Your task to perform on an android device: turn on translation in the chrome app Image 0: 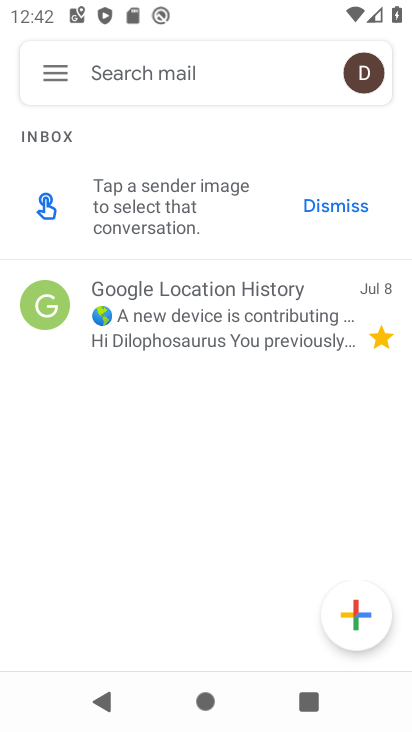
Step 0: press home button
Your task to perform on an android device: turn on translation in the chrome app Image 1: 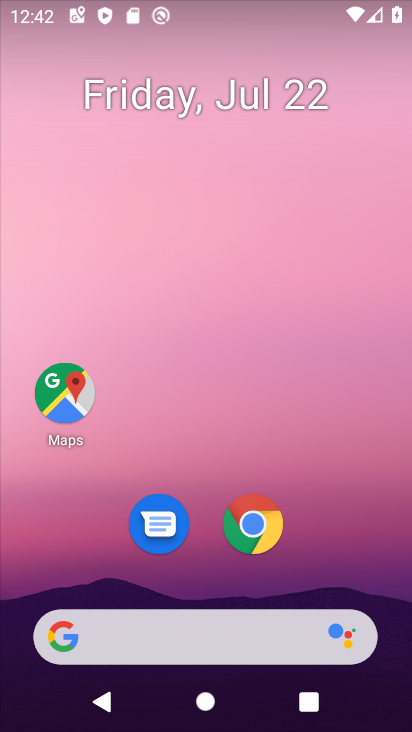
Step 1: click (264, 524)
Your task to perform on an android device: turn on translation in the chrome app Image 2: 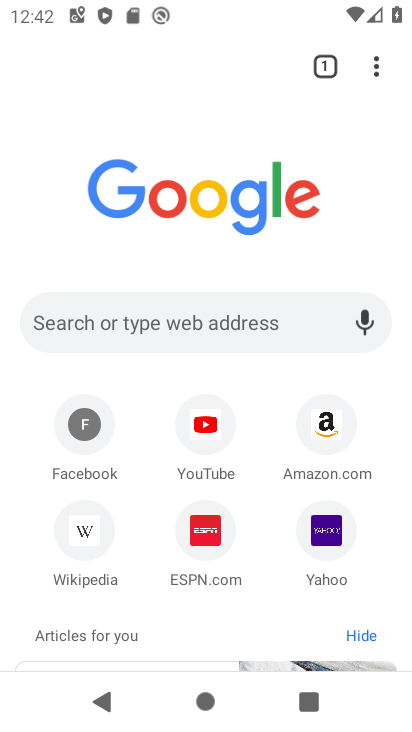
Step 2: click (375, 69)
Your task to perform on an android device: turn on translation in the chrome app Image 3: 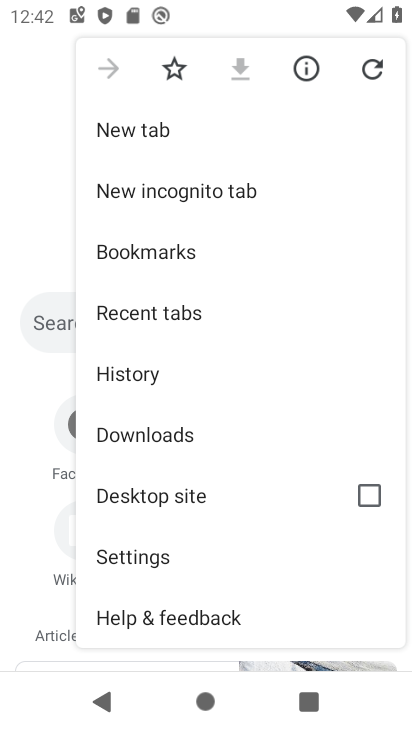
Step 3: click (163, 553)
Your task to perform on an android device: turn on translation in the chrome app Image 4: 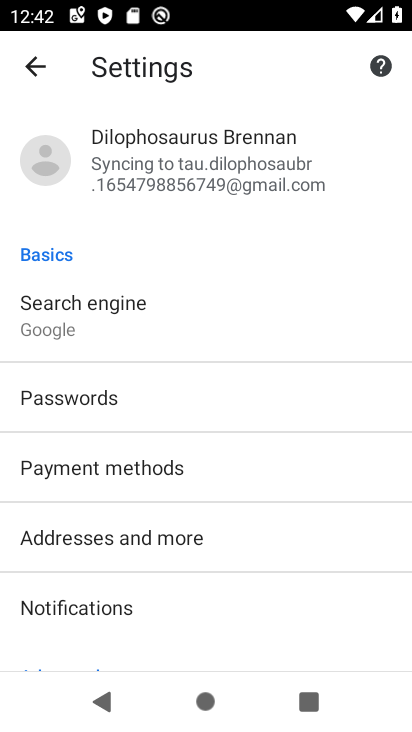
Step 4: drag from (209, 588) to (258, 170)
Your task to perform on an android device: turn on translation in the chrome app Image 5: 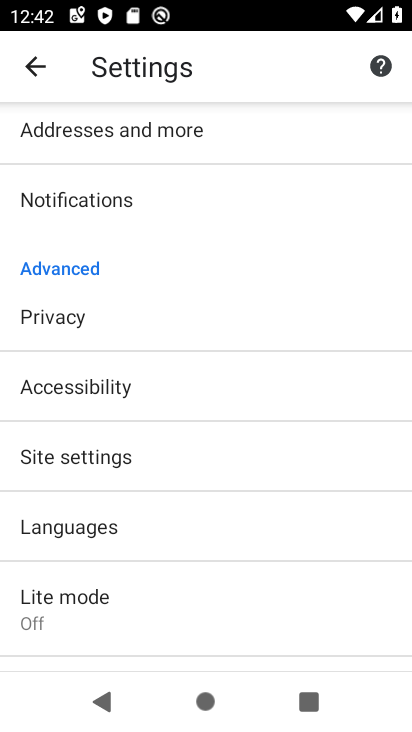
Step 5: click (168, 520)
Your task to perform on an android device: turn on translation in the chrome app Image 6: 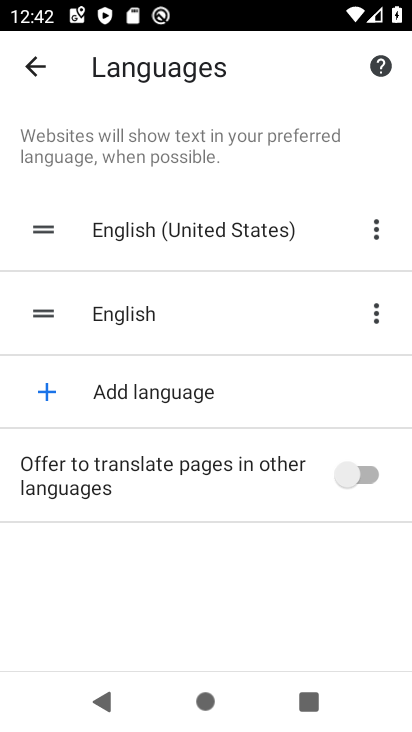
Step 6: click (363, 468)
Your task to perform on an android device: turn on translation in the chrome app Image 7: 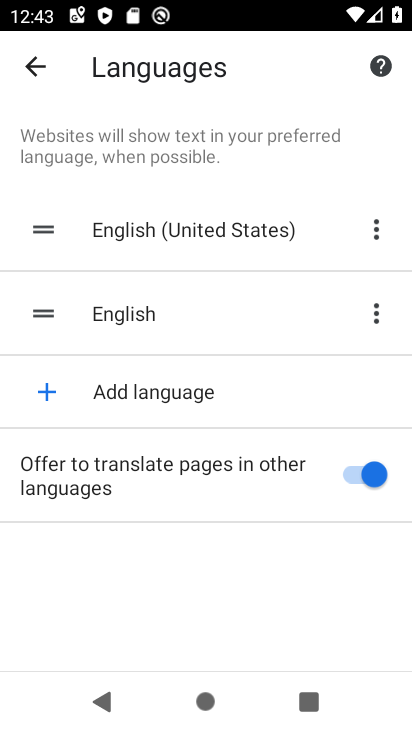
Step 7: task complete